Your task to perform on an android device: turn off location Image 0: 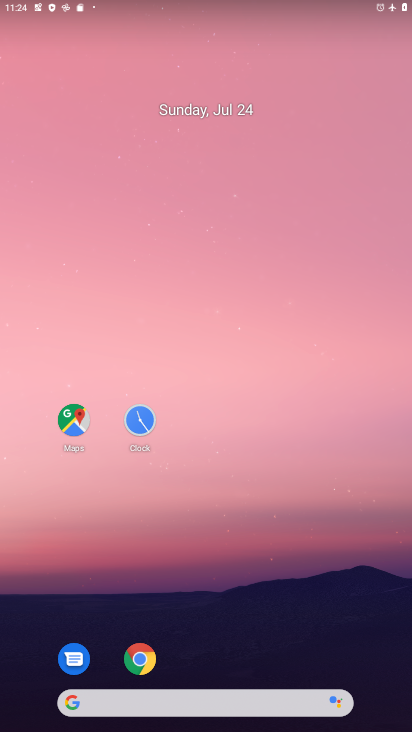
Step 0: drag from (362, 215) to (356, 127)
Your task to perform on an android device: turn off location Image 1: 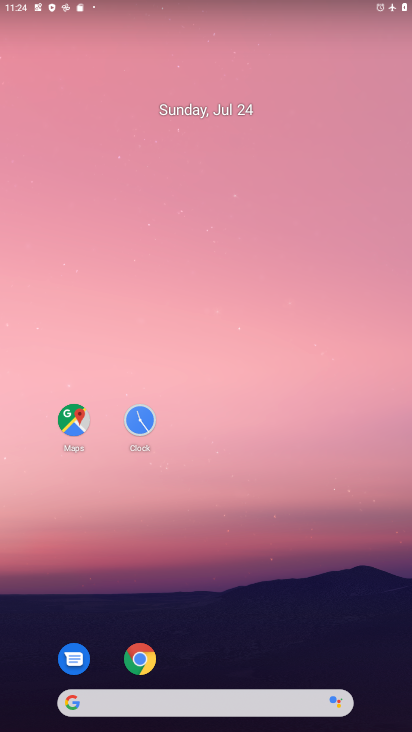
Step 1: drag from (383, 704) to (369, 14)
Your task to perform on an android device: turn off location Image 2: 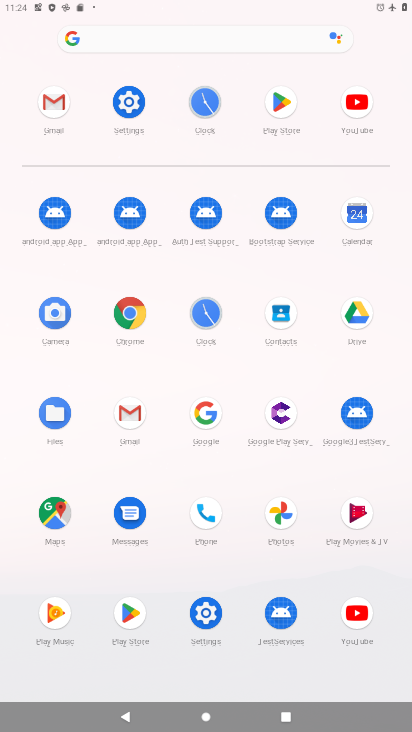
Step 2: click (211, 618)
Your task to perform on an android device: turn off location Image 3: 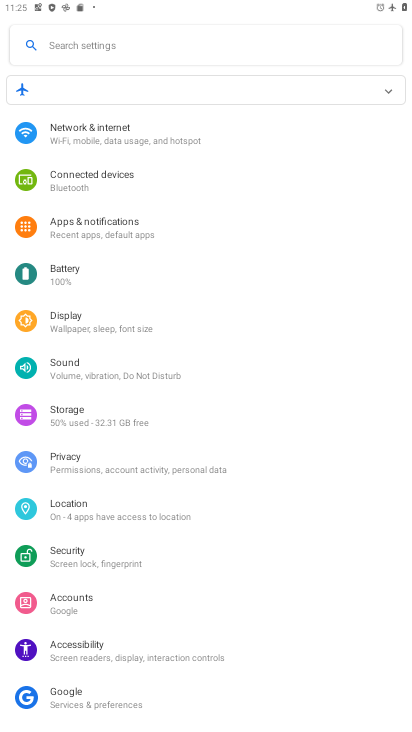
Step 3: click (82, 496)
Your task to perform on an android device: turn off location Image 4: 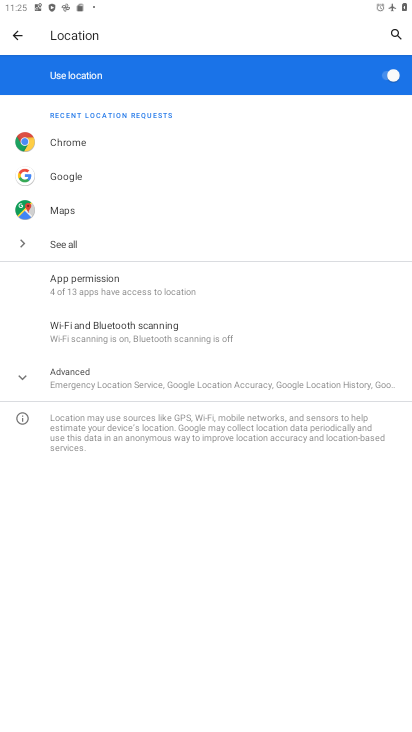
Step 4: click (388, 76)
Your task to perform on an android device: turn off location Image 5: 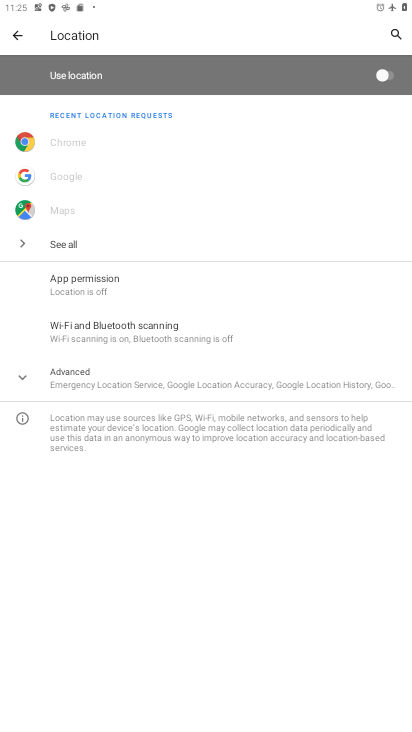
Step 5: task complete